Your task to perform on an android device: Go to wifi settings Image 0: 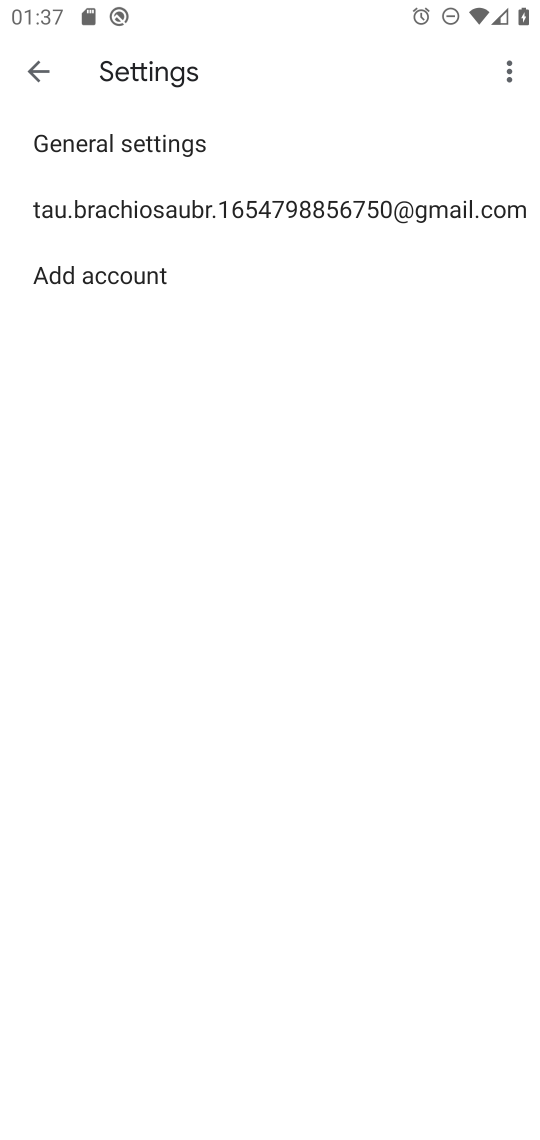
Step 0: press home button
Your task to perform on an android device: Go to wifi settings Image 1: 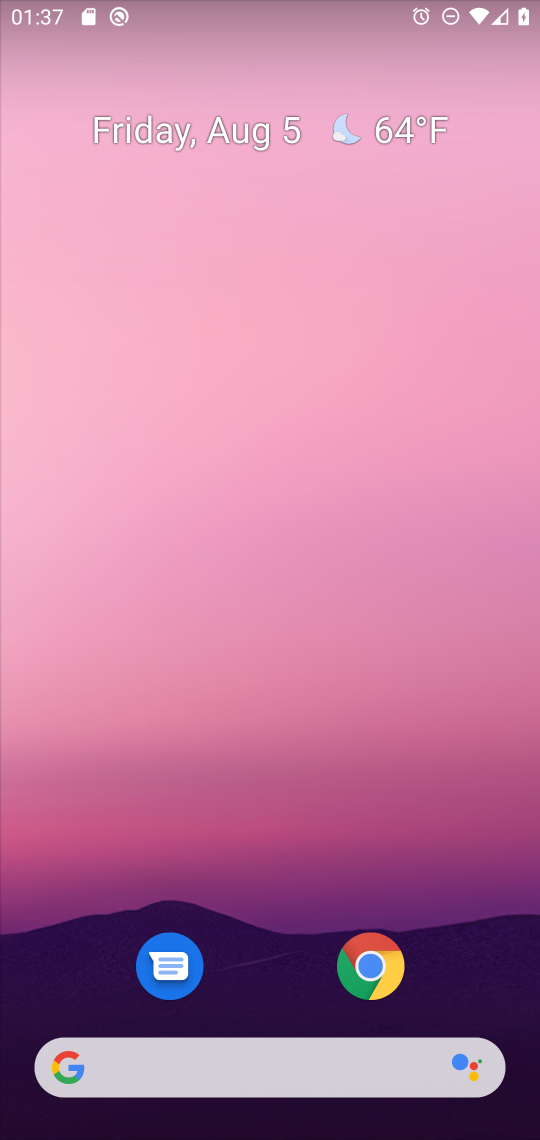
Step 1: drag from (250, 867) to (252, 0)
Your task to perform on an android device: Go to wifi settings Image 2: 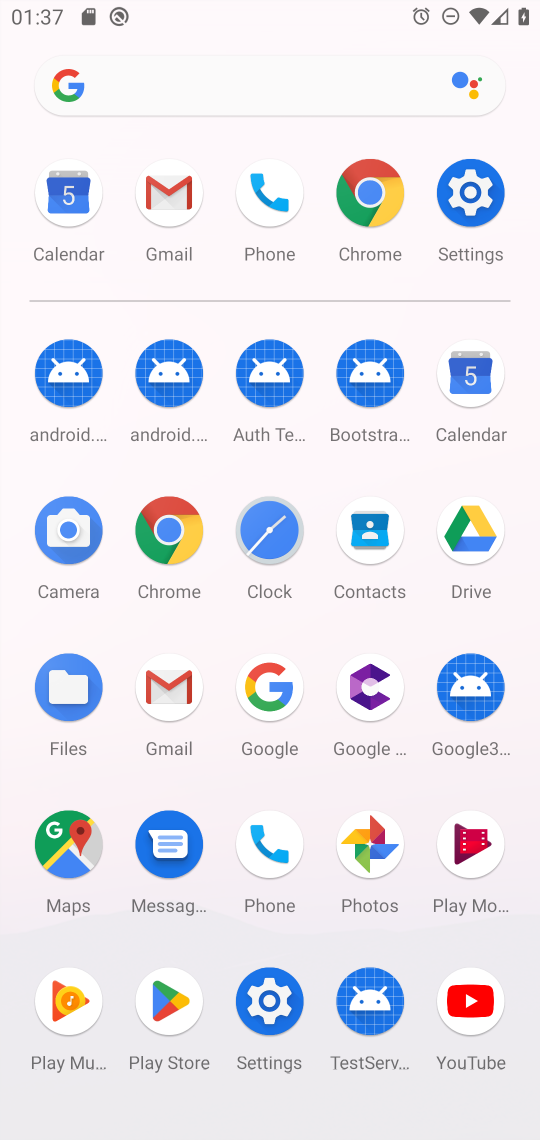
Step 2: click (463, 185)
Your task to perform on an android device: Go to wifi settings Image 3: 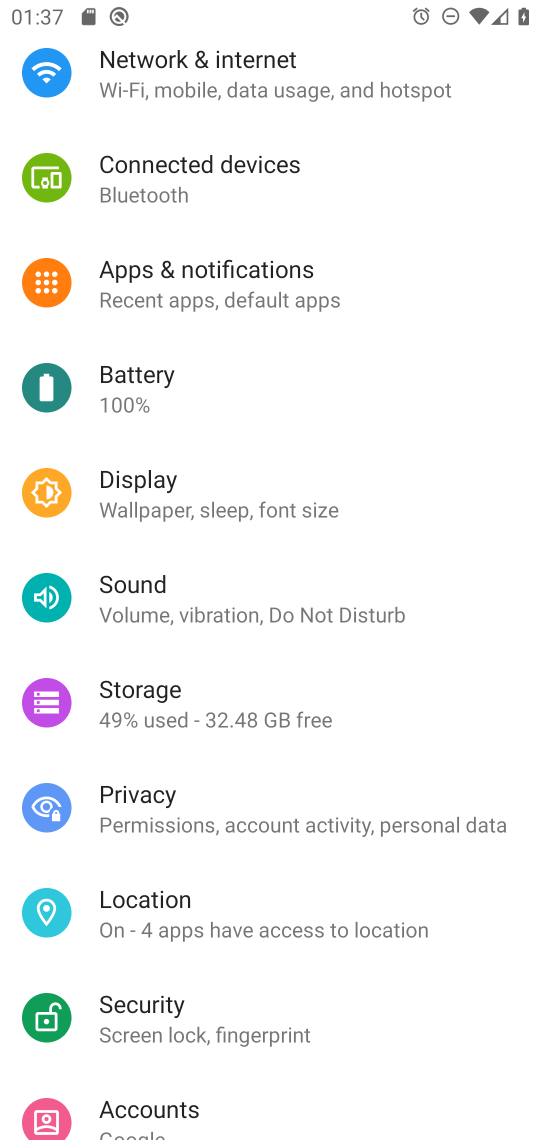
Step 3: click (312, 73)
Your task to perform on an android device: Go to wifi settings Image 4: 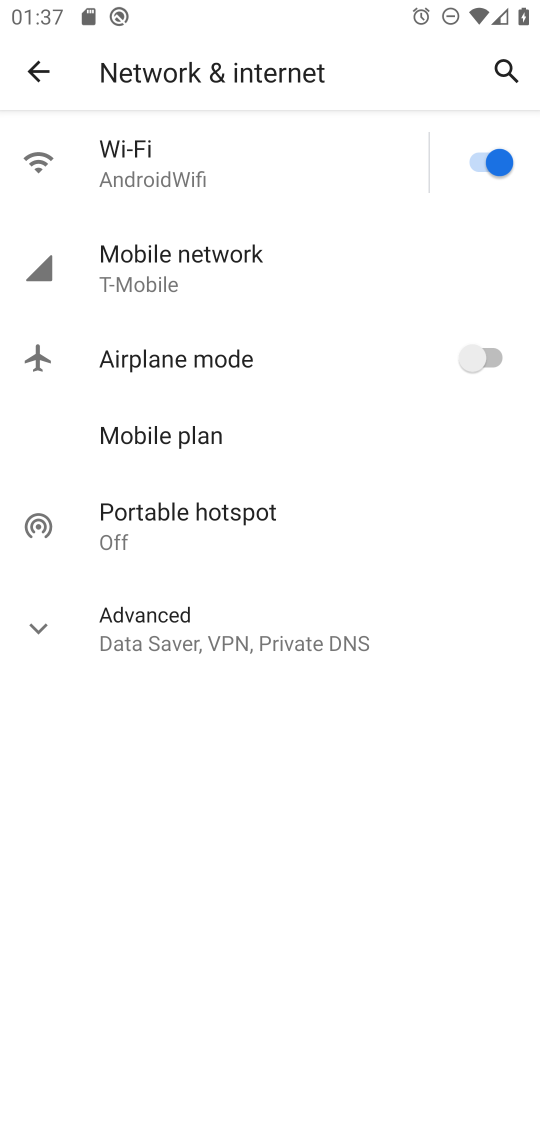
Step 4: click (148, 161)
Your task to perform on an android device: Go to wifi settings Image 5: 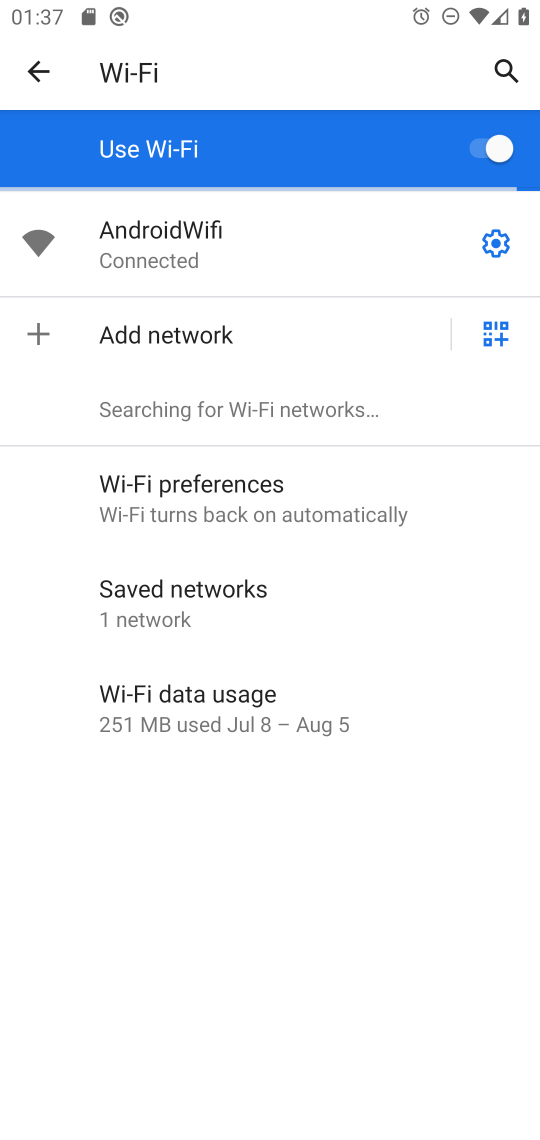
Step 5: task complete